Your task to perform on an android device: check google app version Image 0: 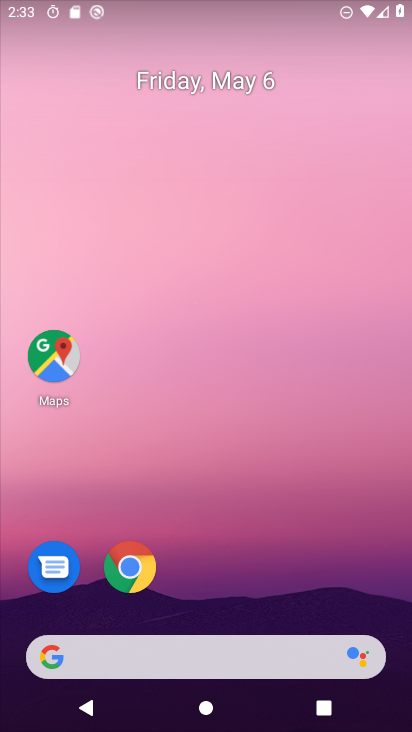
Step 0: drag from (249, 682) to (222, 191)
Your task to perform on an android device: check google app version Image 1: 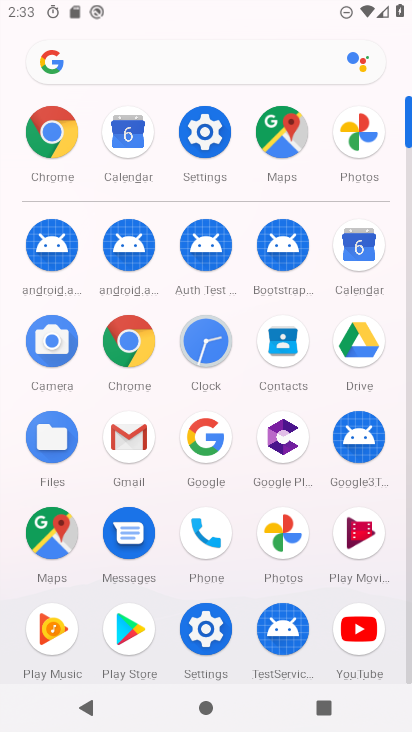
Step 1: click (139, 361)
Your task to perform on an android device: check google app version Image 2: 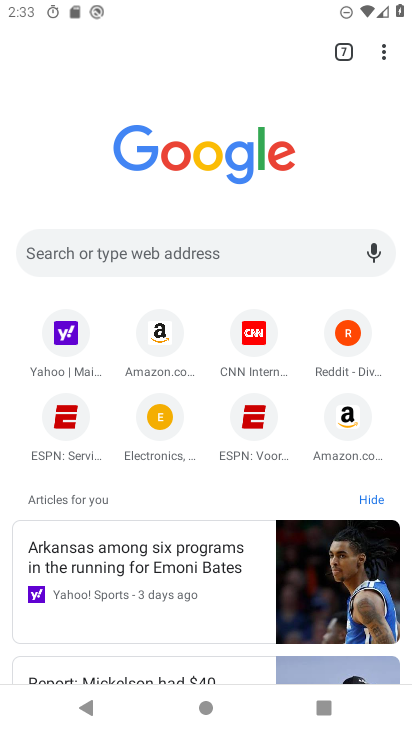
Step 2: click (380, 78)
Your task to perform on an android device: check google app version Image 3: 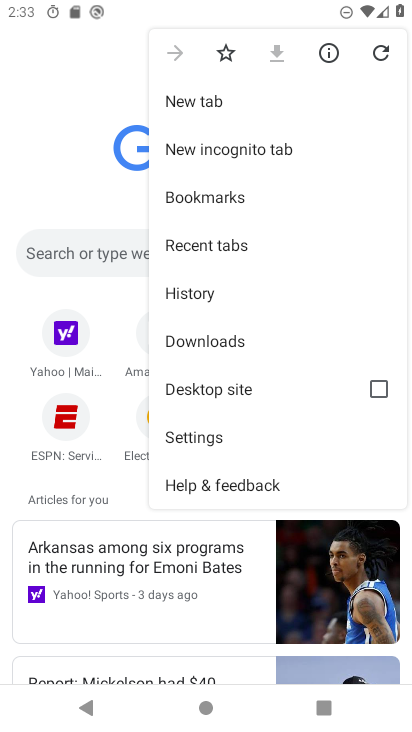
Step 3: click (214, 436)
Your task to perform on an android device: check google app version Image 4: 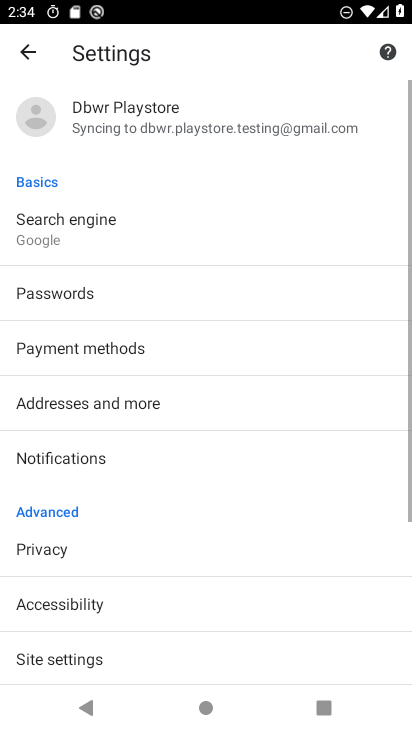
Step 4: drag from (163, 518) to (201, 144)
Your task to perform on an android device: check google app version Image 5: 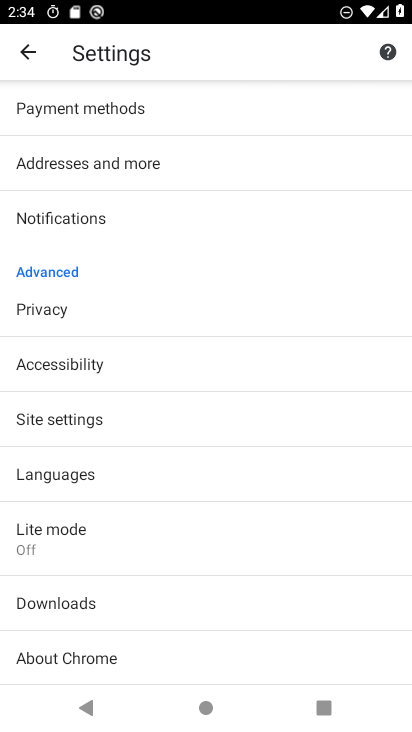
Step 5: drag from (156, 613) to (210, 506)
Your task to perform on an android device: check google app version Image 6: 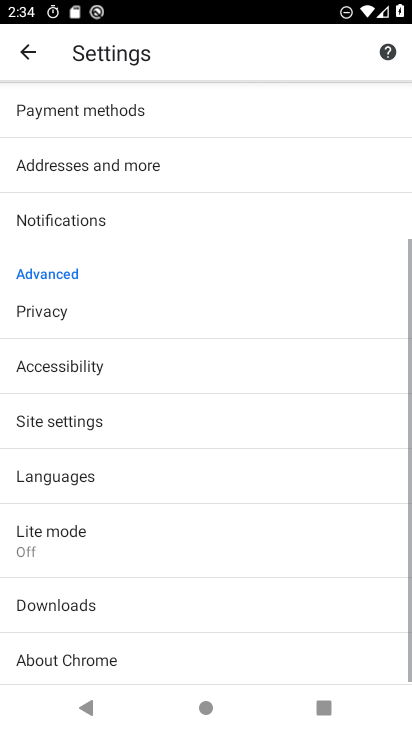
Step 6: click (125, 657)
Your task to perform on an android device: check google app version Image 7: 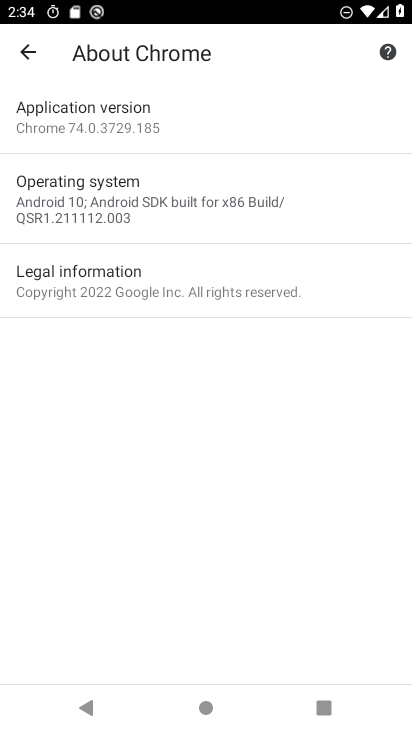
Step 7: click (165, 138)
Your task to perform on an android device: check google app version Image 8: 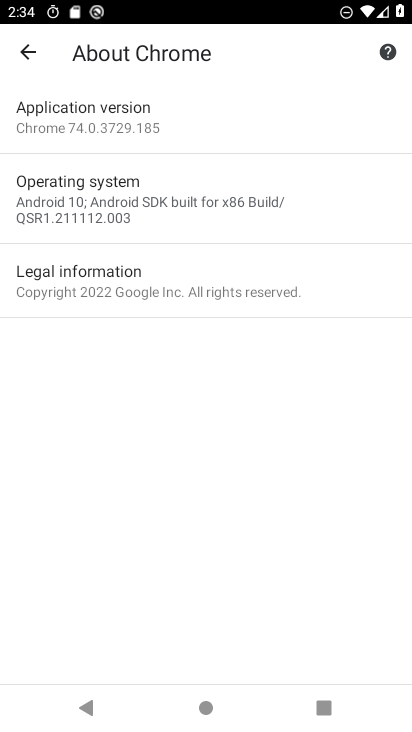
Step 8: task complete